Your task to perform on an android device: Go to Amazon Image 0: 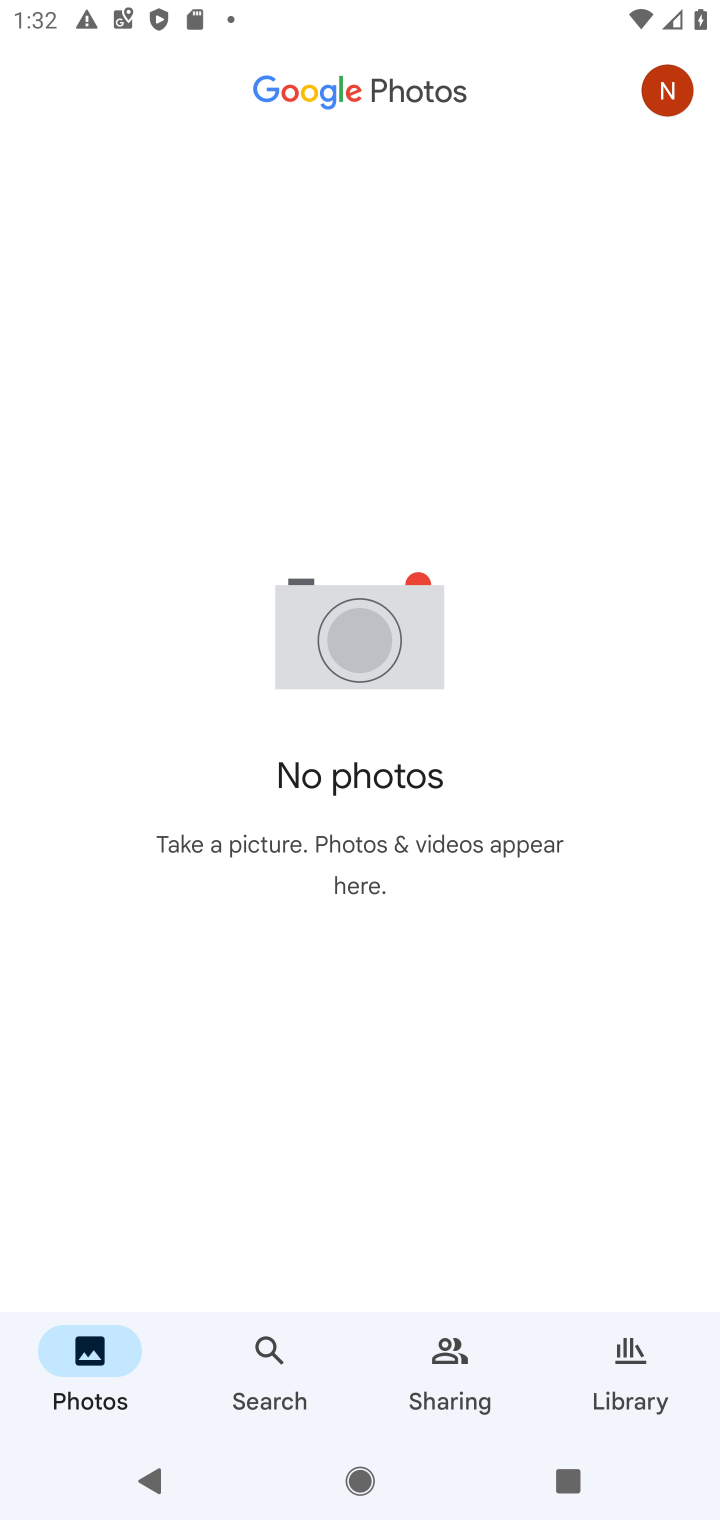
Step 0: press home button
Your task to perform on an android device: Go to Amazon Image 1: 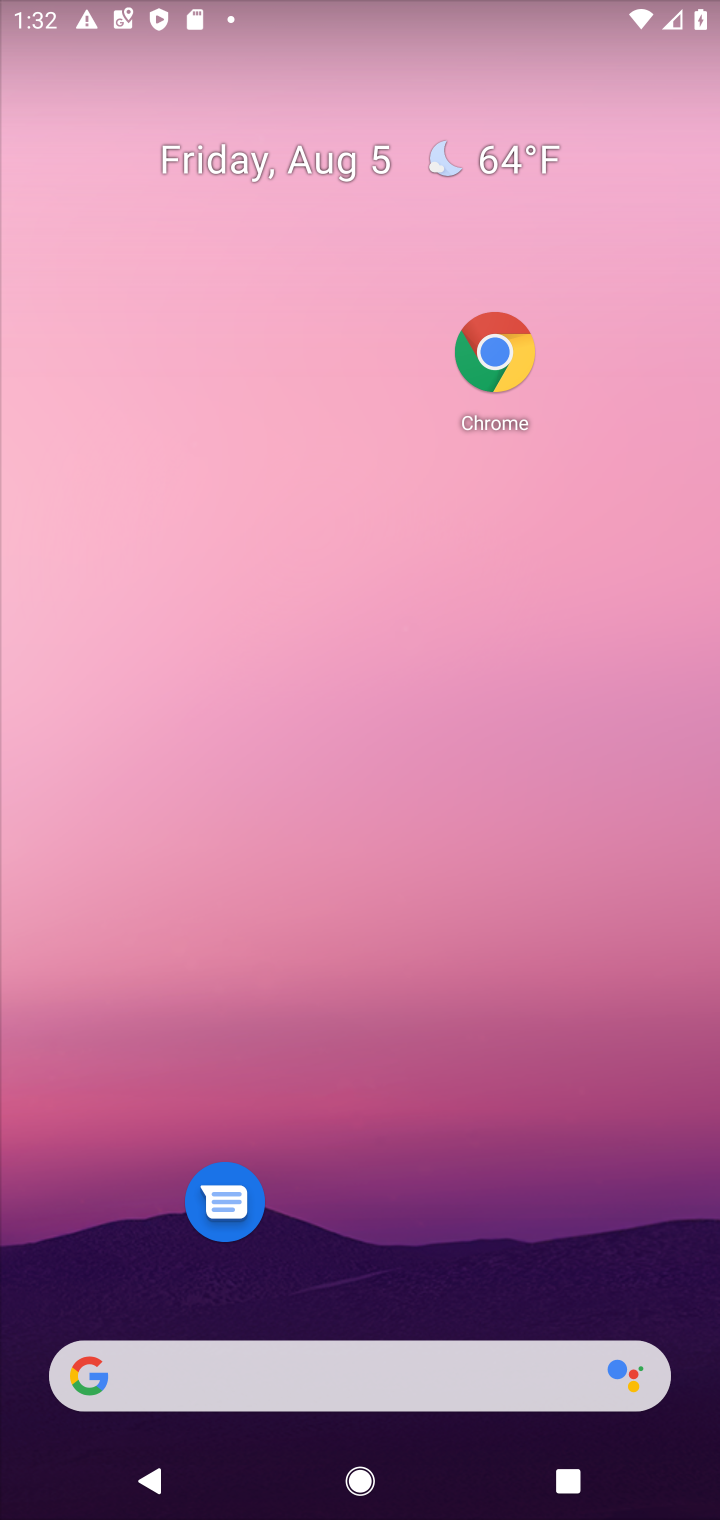
Step 1: drag from (544, 1274) to (483, 191)
Your task to perform on an android device: Go to Amazon Image 2: 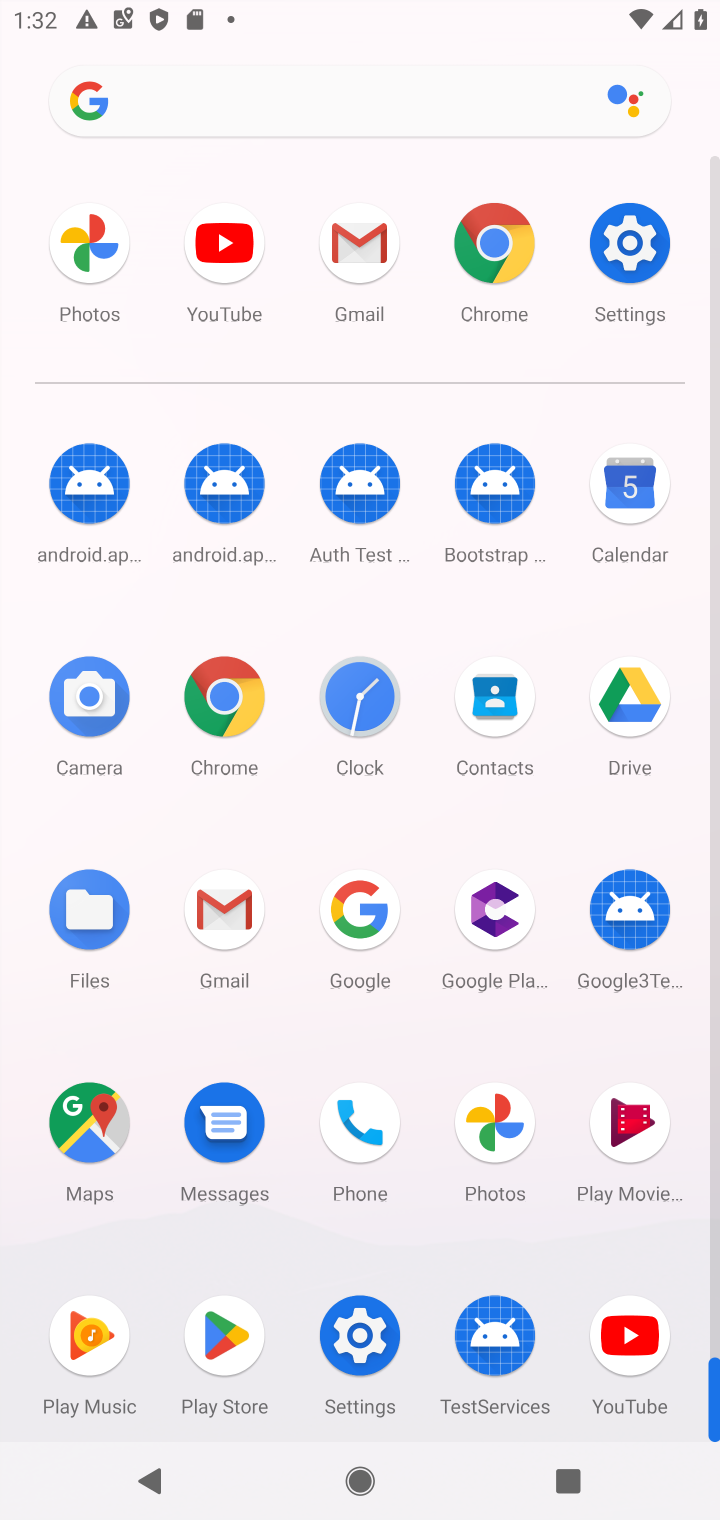
Step 2: click (230, 687)
Your task to perform on an android device: Go to Amazon Image 3: 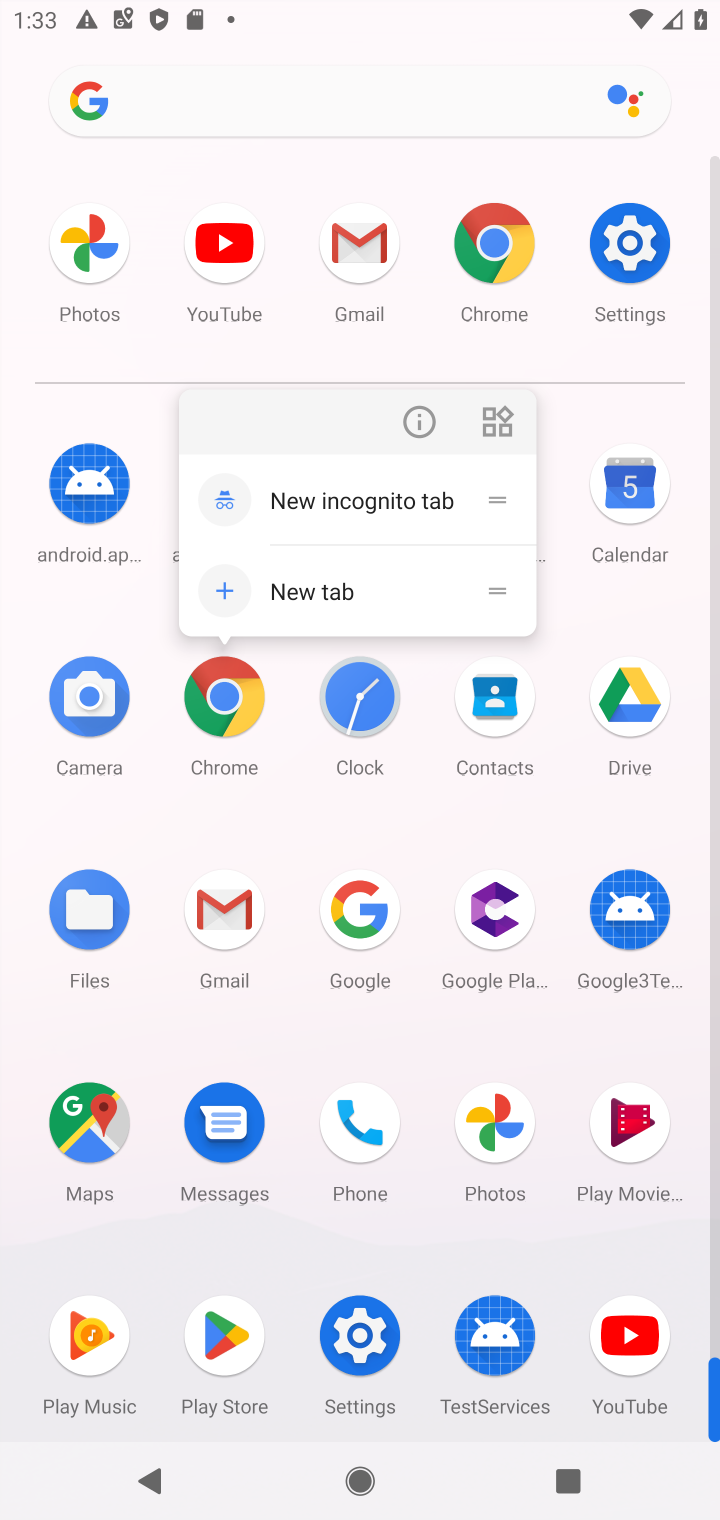
Step 3: click (230, 699)
Your task to perform on an android device: Go to Amazon Image 4: 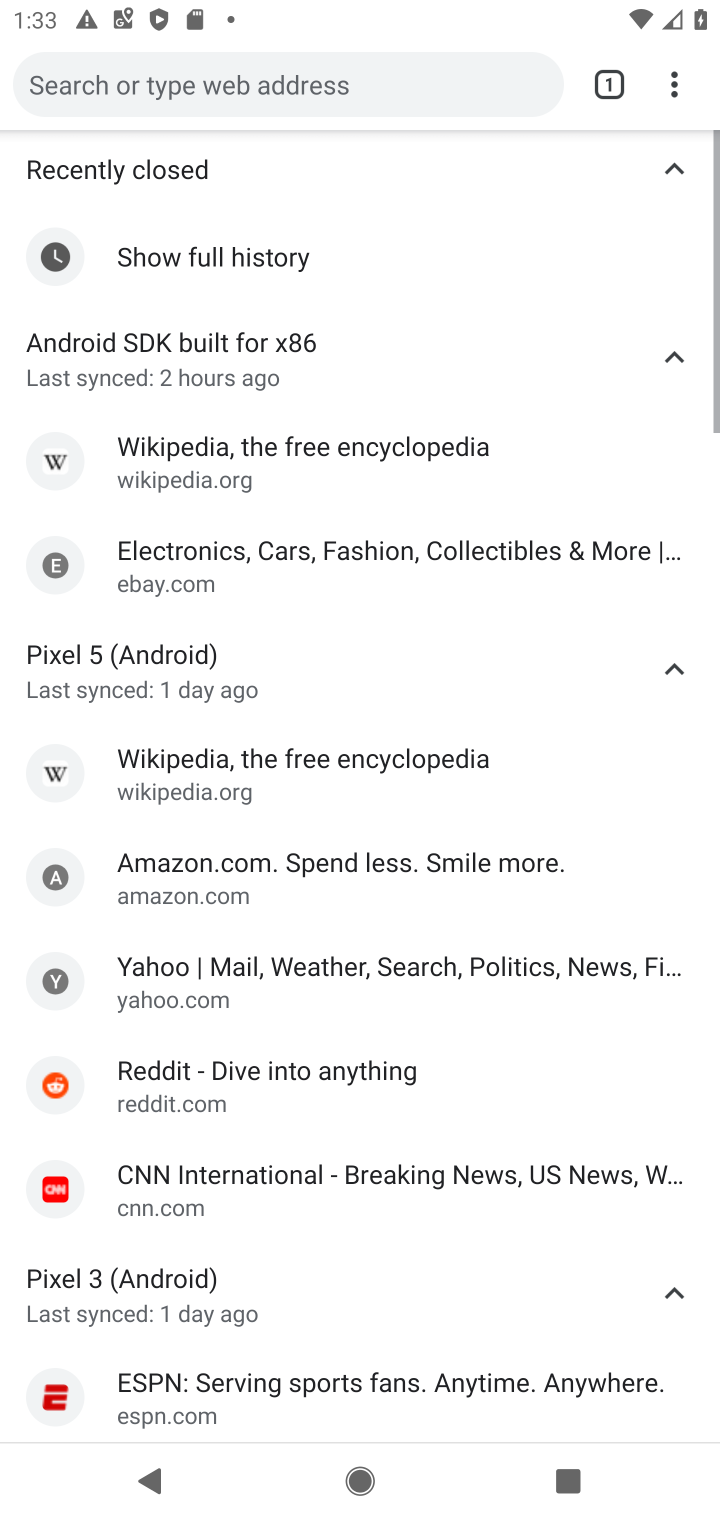
Step 4: click (338, 76)
Your task to perform on an android device: Go to Amazon Image 5: 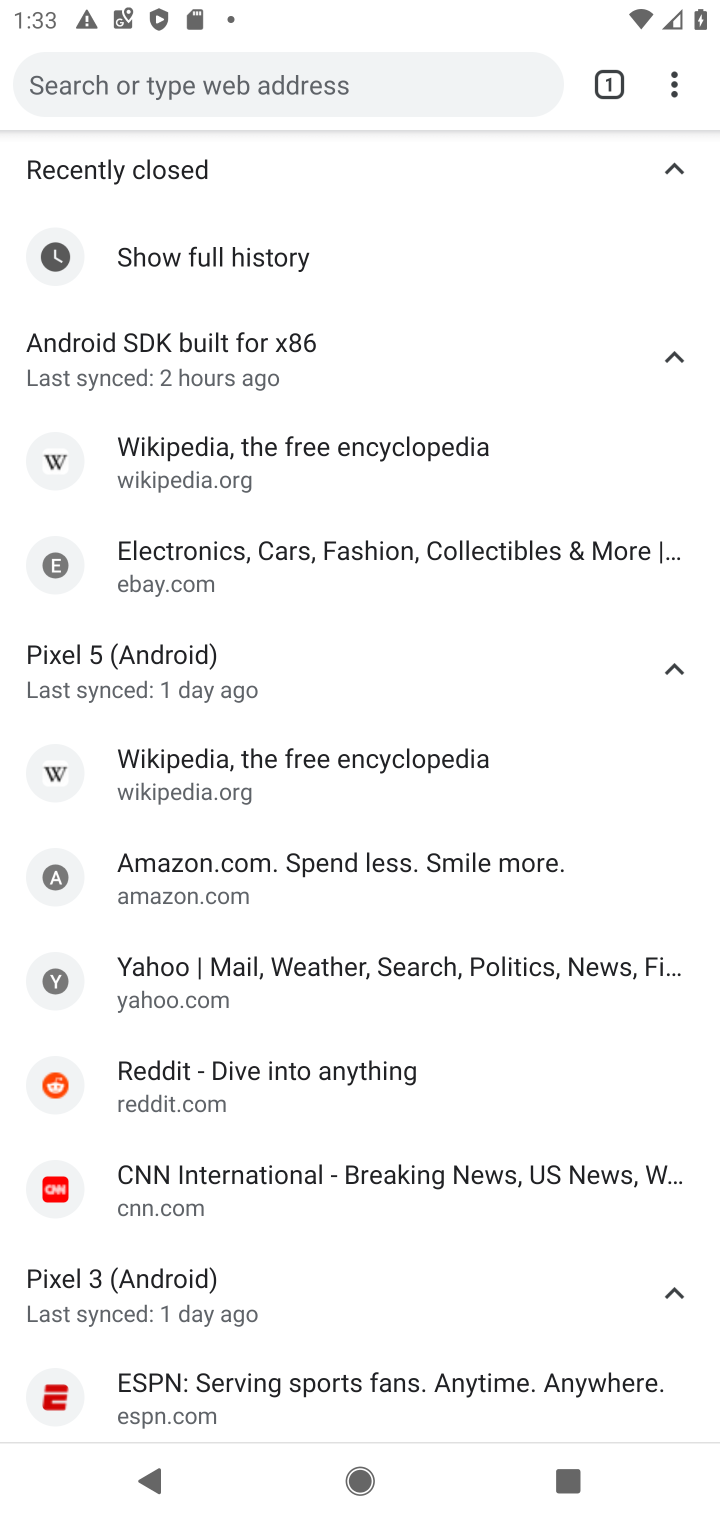
Step 5: click (336, 76)
Your task to perform on an android device: Go to Amazon Image 6: 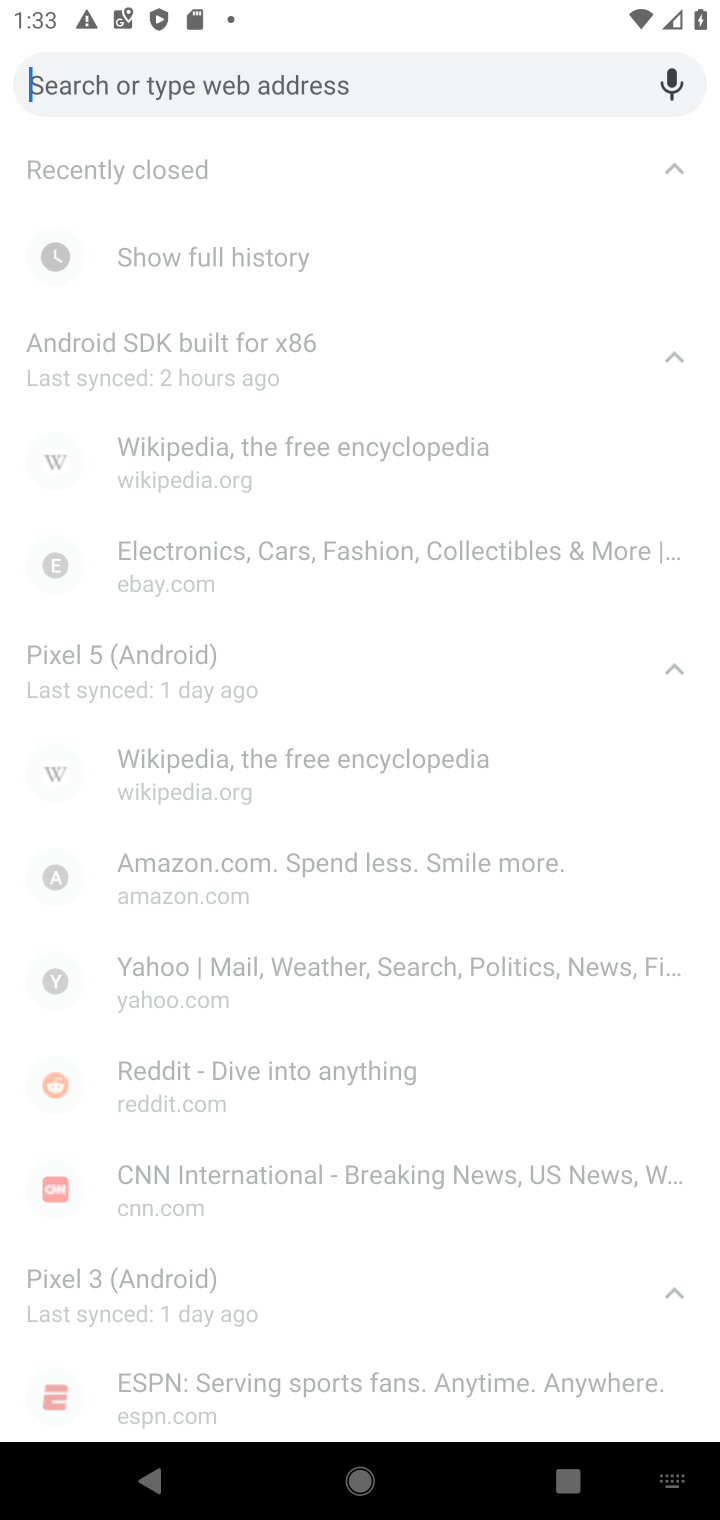
Step 6: type "amazon"
Your task to perform on an android device: Go to Amazon Image 7: 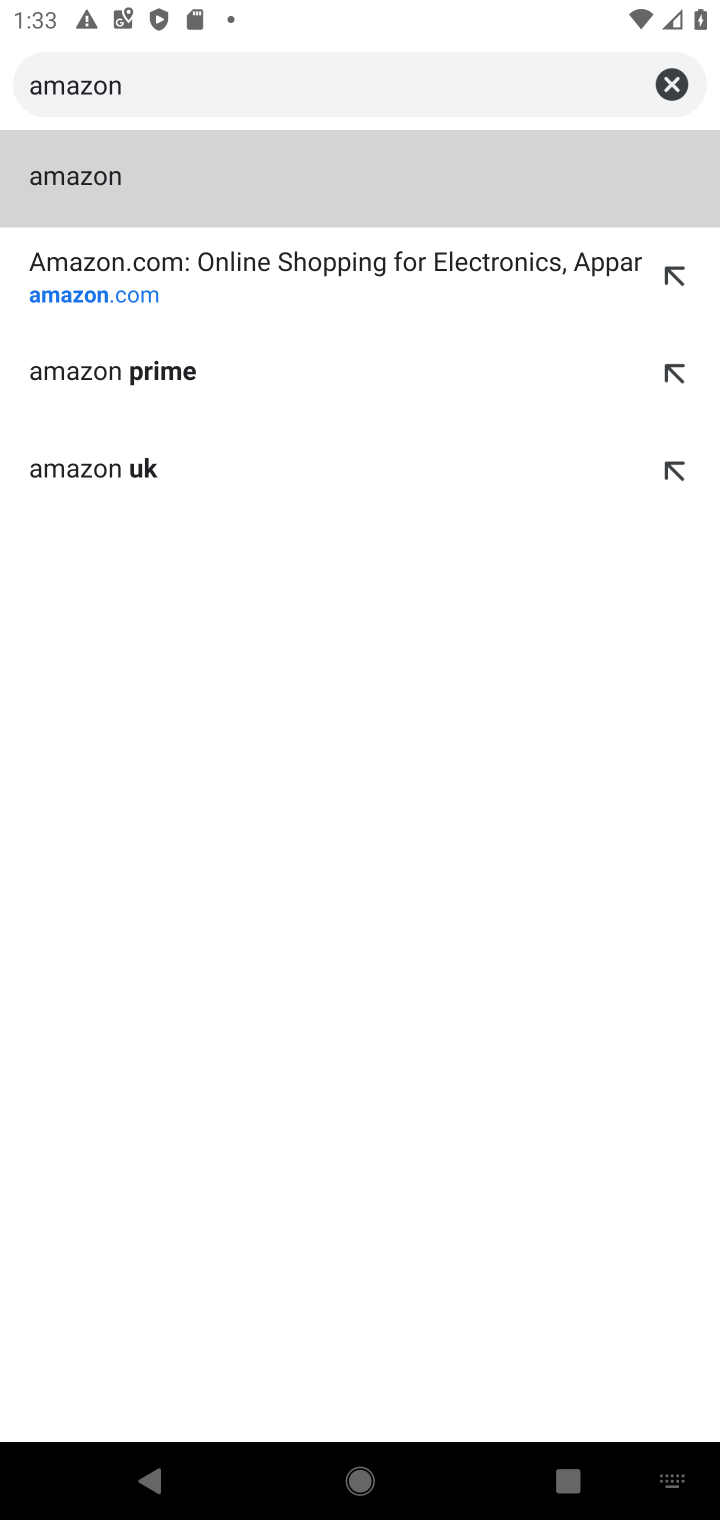
Step 7: click (123, 309)
Your task to perform on an android device: Go to Amazon Image 8: 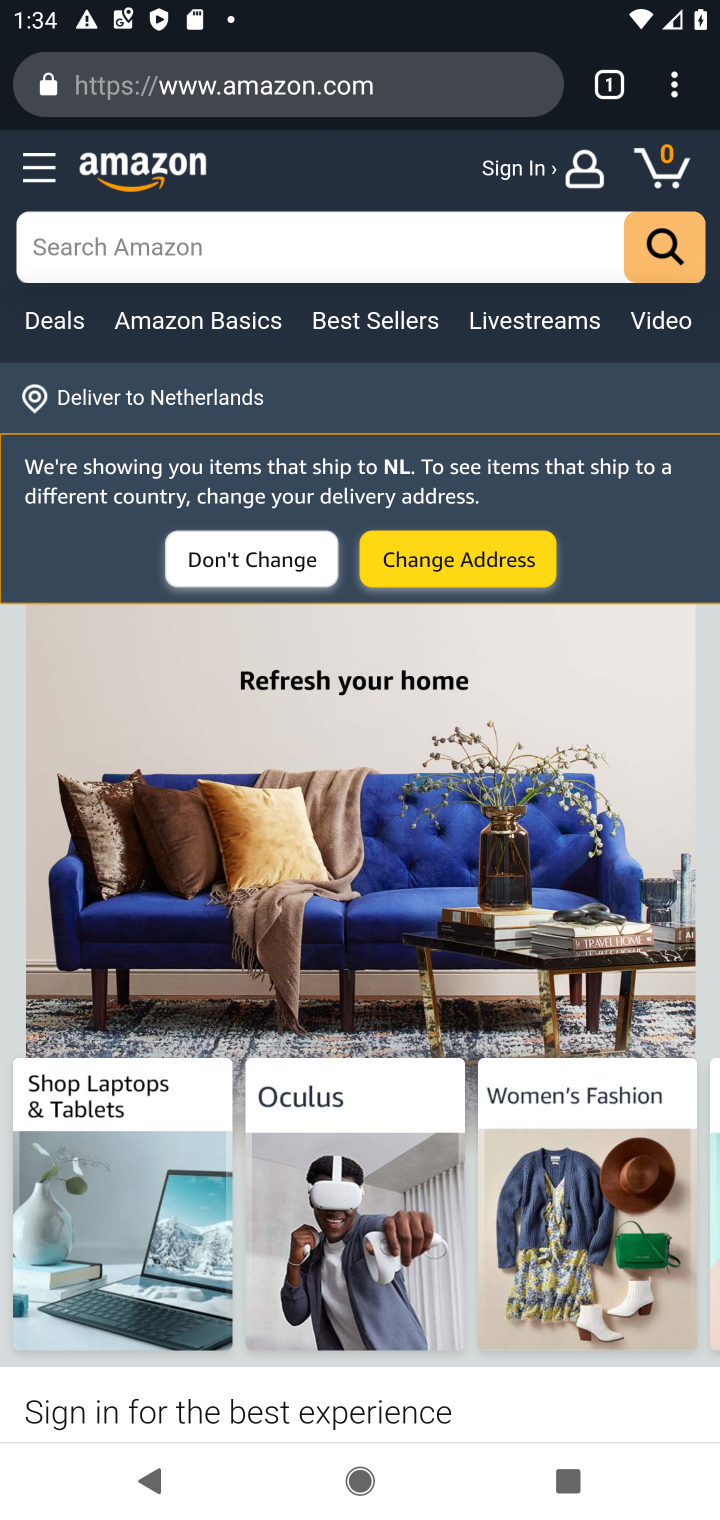
Step 8: task complete